Your task to perform on an android device: Search for dell alienware on costco.com, select the first entry, and add it to the cart. Image 0: 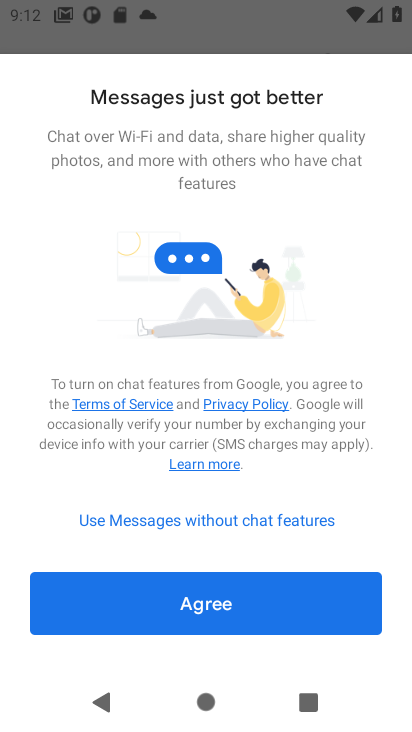
Step 0: press home button
Your task to perform on an android device: Search for dell alienware on costco.com, select the first entry, and add it to the cart. Image 1: 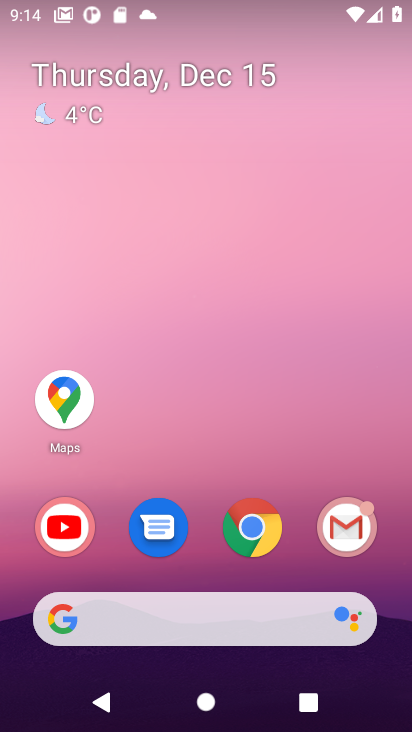
Step 1: click (275, 539)
Your task to perform on an android device: Search for dell alienware on costco.com, select the first entry, and add it to the cart. Image 2: 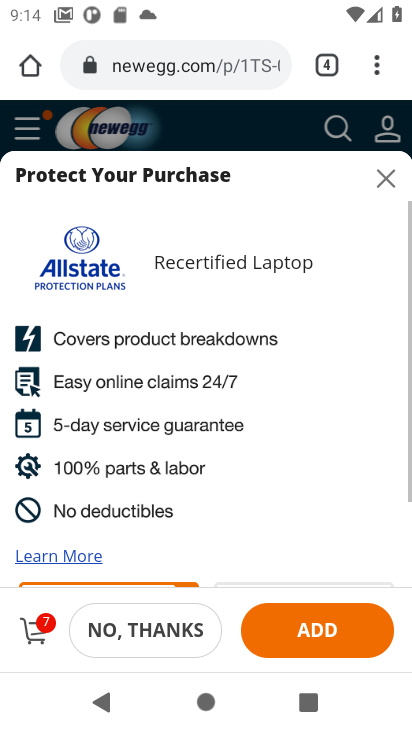
Step 2: click (383, 182)
Your task to perform on an android device: Search for dell alienware on costco.com, select the first entry, and add it to the cart. Image 3: 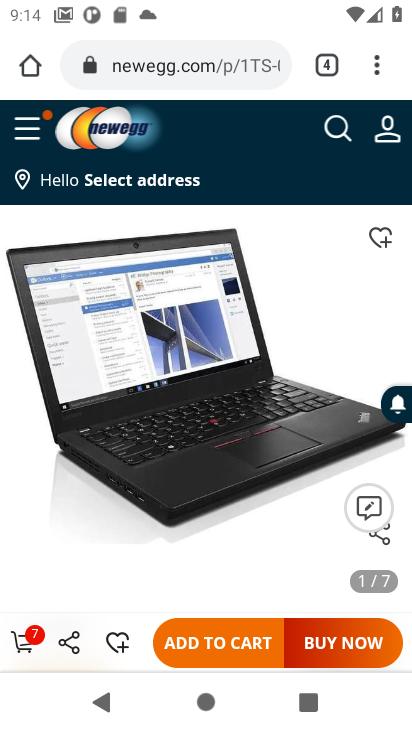
Step 3: click (194, 74)
Your task to perform on an android device: Search for dell alienware on costco.com, select the first entry, and add it to the cart. Image 4: 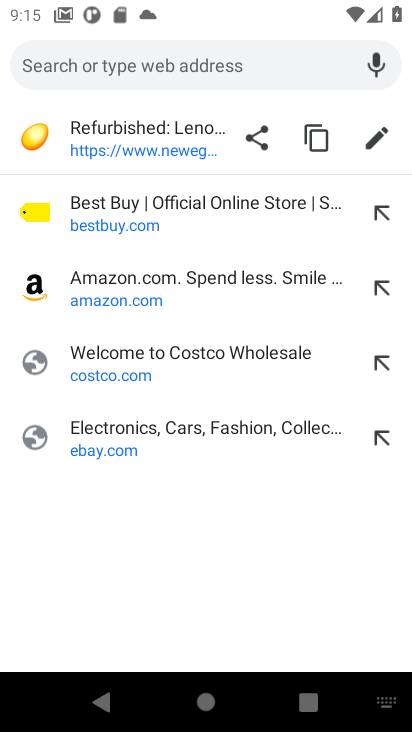
Step 4: click (197, 359)
Your task to perform on an android device: Search for dell alienware on costco.com, select the first entry, and add it to the cart. Image 5: 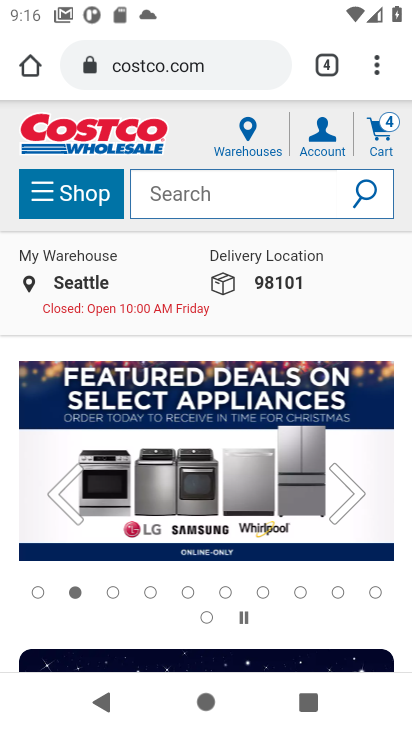
Step 5: task complete